Your task to perform on an android device: turn off airplane mode Image 0: 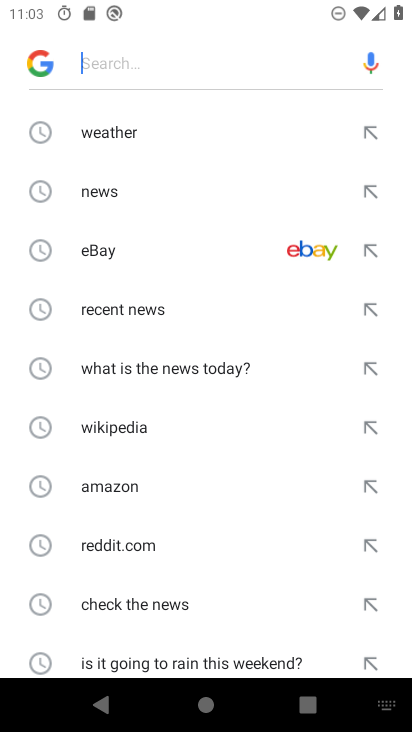
Step 0: press home button
Your task to perform on an android device: turn off airplane mode Image 1: 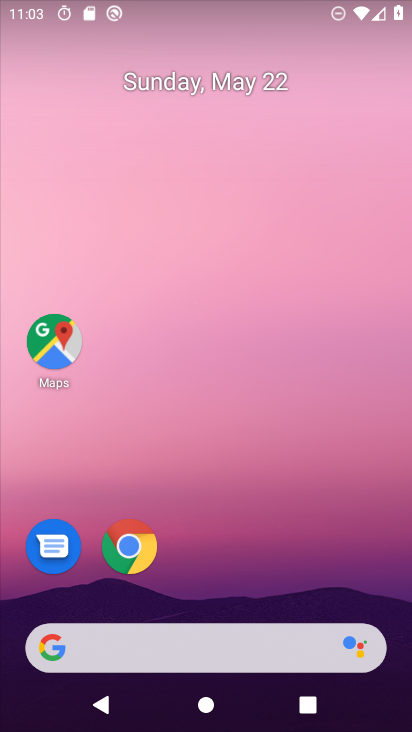
Step 1: drag from (216, 140) to (299, 9)
Your task to perform on an android device: turn off airplane mode Image 2: 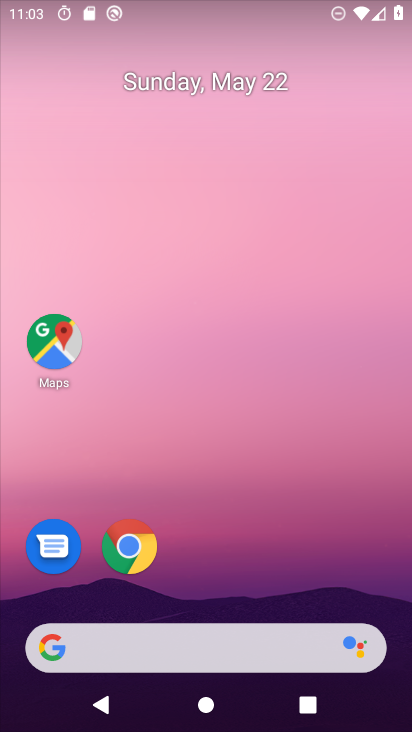
Step 2: drag from (211, 604) to (253, 10)
Your task to perform on an android device: turn off airplane mode Image 3: 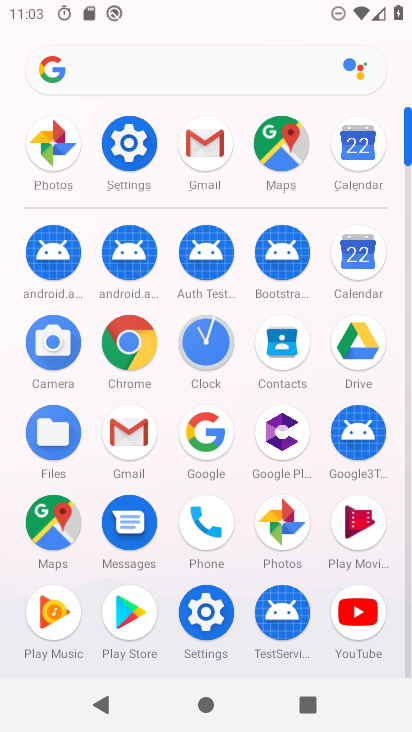
Step 3: click (124, 145)
Your task to perform on an android device: turn off airplane mode Image 4: 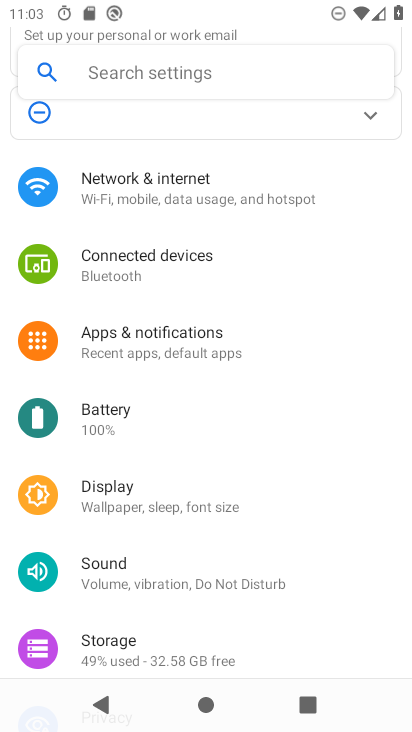
Step 4: click (164, 196)
Your task to perform on an android device: turn off airplane mode Image 5: 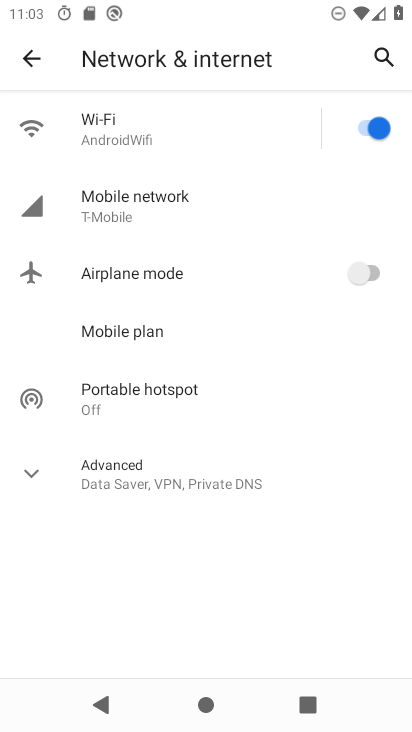
Step 5: task complete